Your task to perform on an android device: toggle airplane mode Image 0: 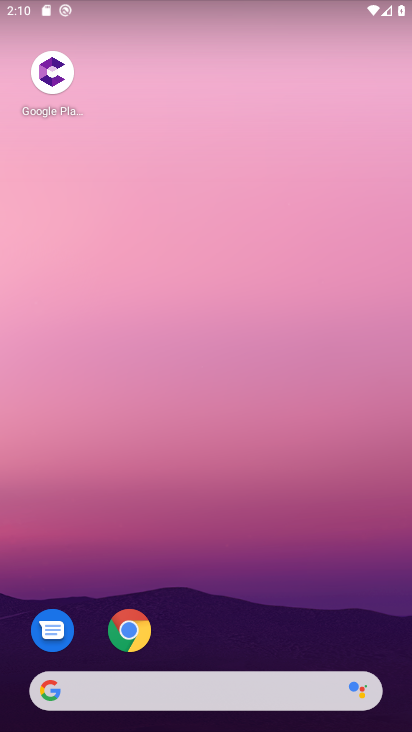
Step 0: drag from (230, 596) to (165, 27)
Your task to perform on an android device: toggle airplane mode Image 1: 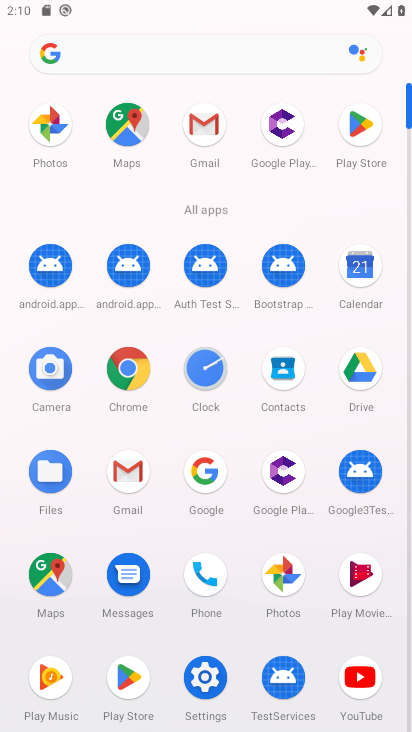
Step 1: click (203, 677)
Your task to perform on an android device: toggle airplane mode Image 2: 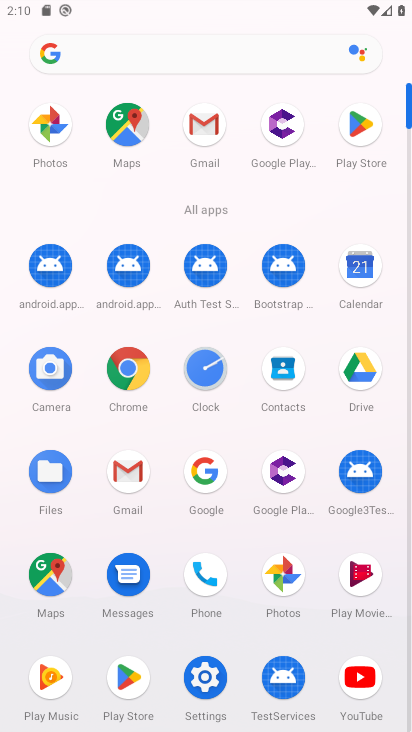
Step 2: click (209, 686)
Your task to perform on an android device: toggle airplane mode Image 3: 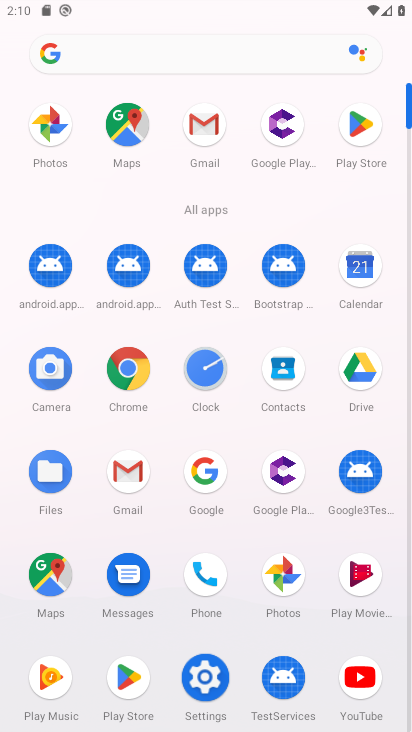
Step 3: click (208, 672)
Your task to perform on an android device: toggle airplane mode Image 4: 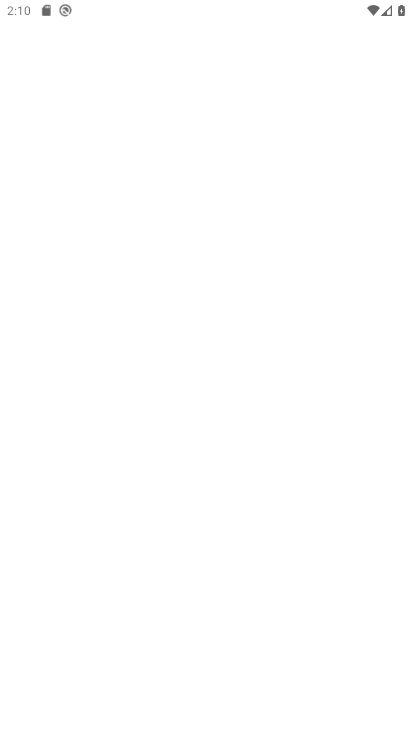
Step 4: click (192, 668)
Your task to perform on an android device: toggle airplane mode Image 5: 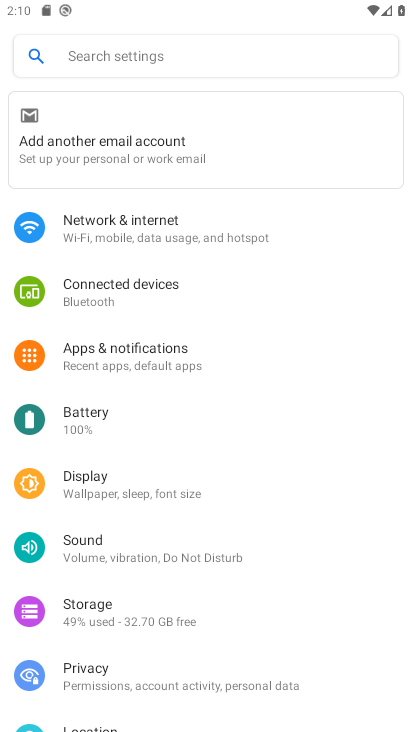
Step 5: click (110, 237)
Your task to perform on an android device: toggle airplane mode Image 6: 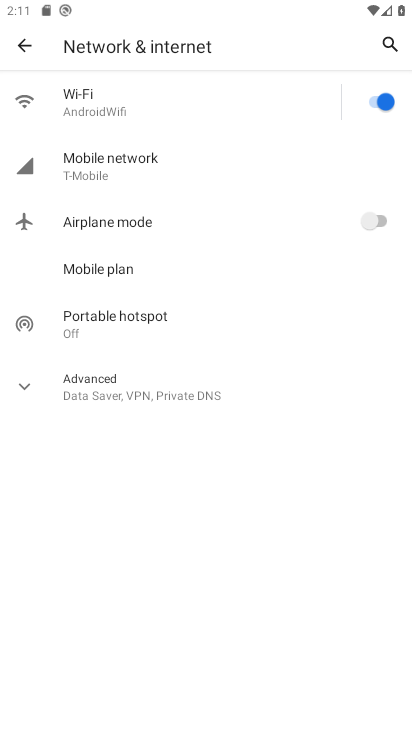
Step 6: click (356, 218)
Your task to perform on an android device: toggle airplane mode Image 7: 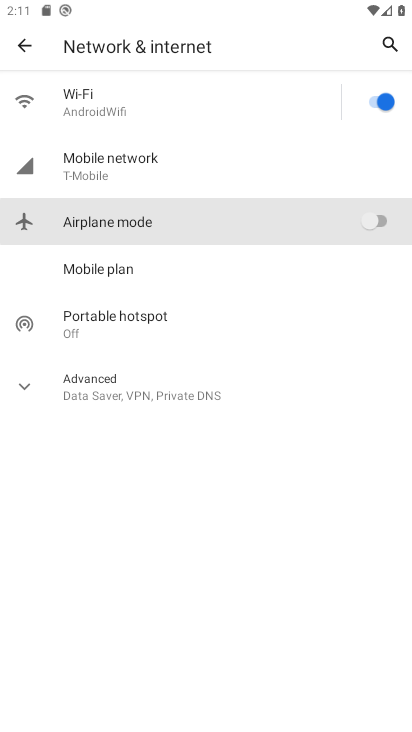
Step 7: click (360, 218)
Your task to perform on an android device: toggle airplane mode Image 8: 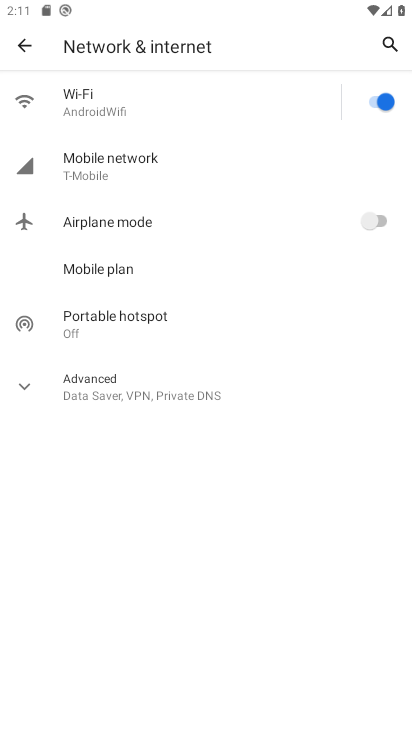
Step 8: click (369, 217)
Your task to perform on an android device: toggle airplane mode Image 9: 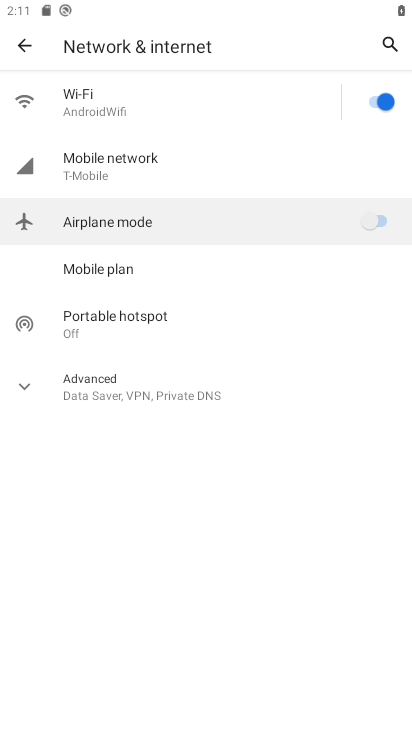
Step 9: click (370, 216)
Your task to perform on an android device: toggle airplane mode Image 10: 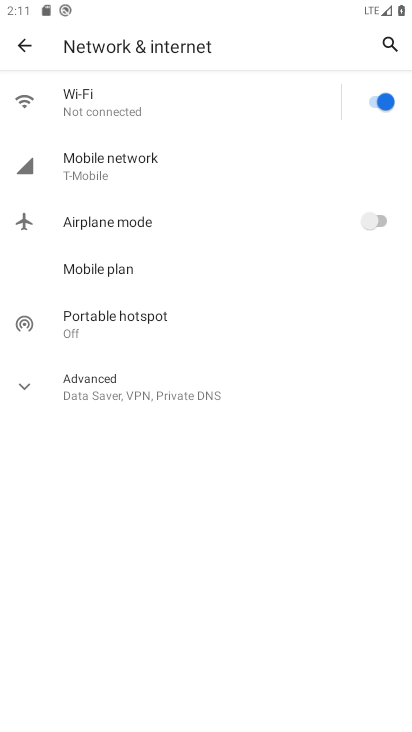
Step 10: click (374, 218)
Your task to perform on an android device: toggle airplane mode Image 11: 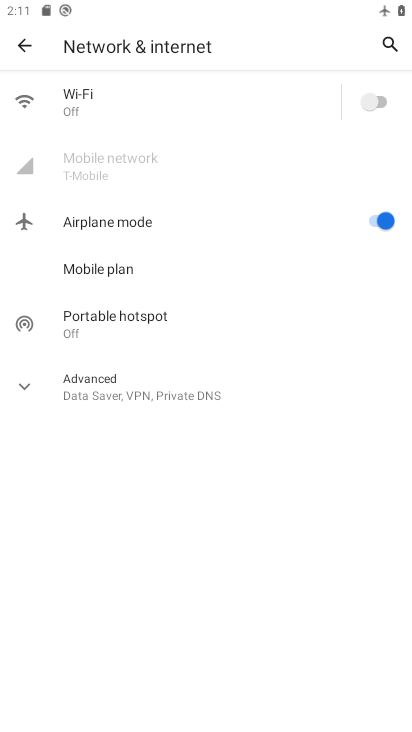
Step 11: task complete